Your task to perform on an android device: Open eBay Image 0: 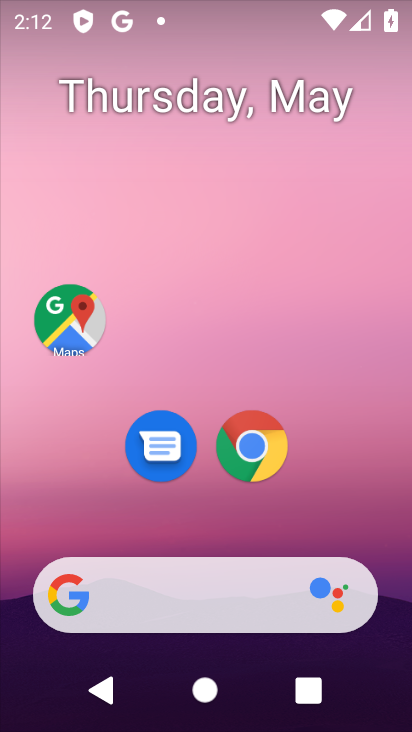
Step 0: click (257, 443)
Your task to perform on an android device: Open eBay Image 1: 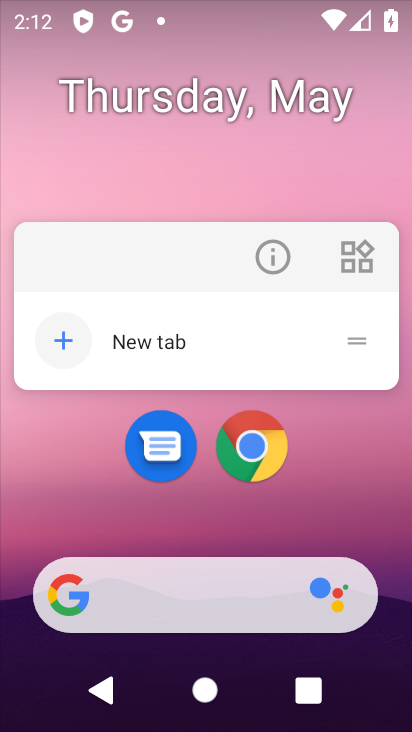
Step 1: click (258, 436)
Your task to perform on an android device: Open eBay Image 2: 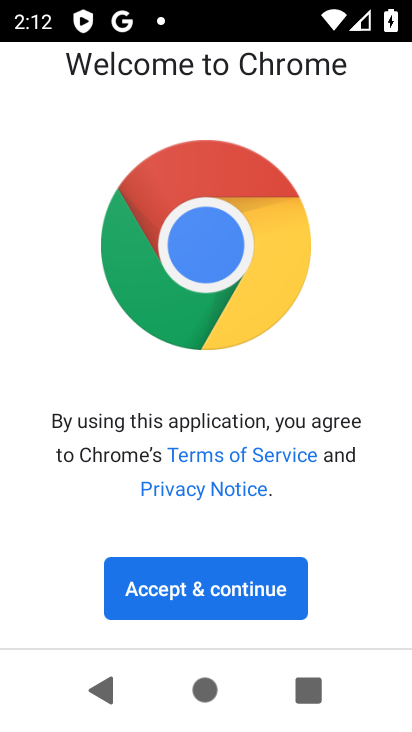
Step 2: click (157, 580)
Your task to perform on an android device: Open eBay Image 3: 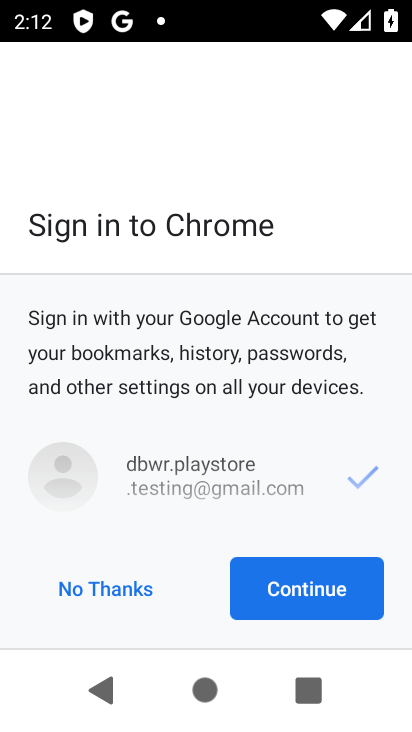
Step 3: click (330, 594)
Your task to perform on an android device: Open eBay Image 4: 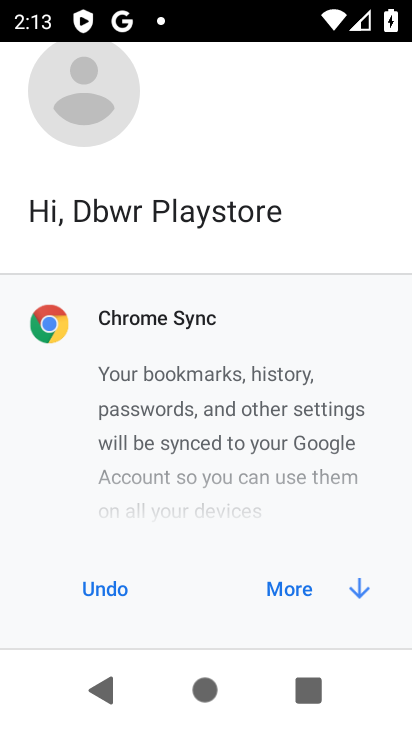
Step 4: click (278, 594)
Your task to perform on an android device: Open eBay Image 5: 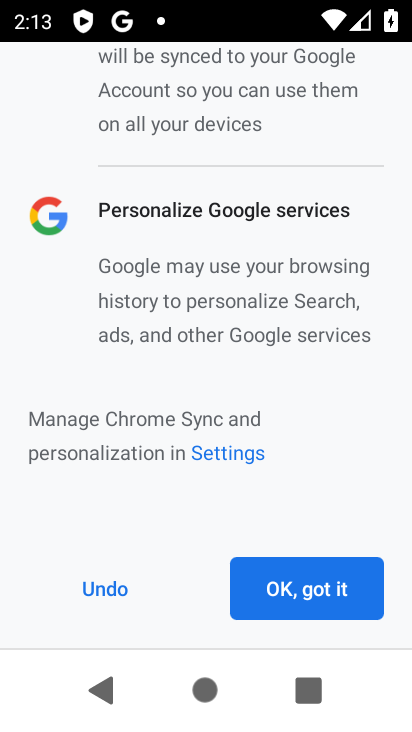
Step 5: click (251, 602)
Your task to perform on an android device: Open eBay Image 6: 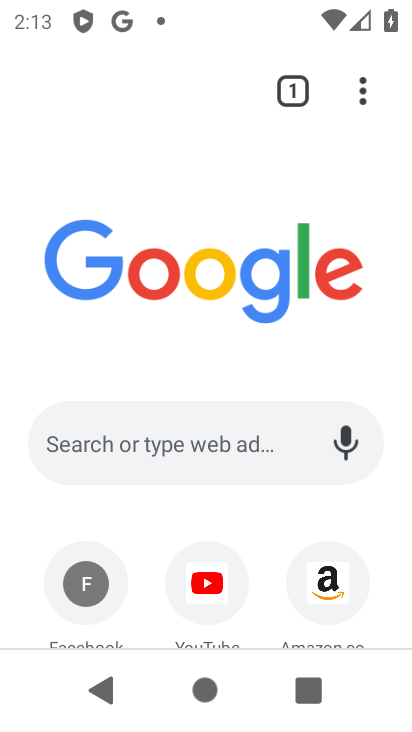
Step 6: click (180, 441)
Your task to perform on an android device: Open eBay Image 7: 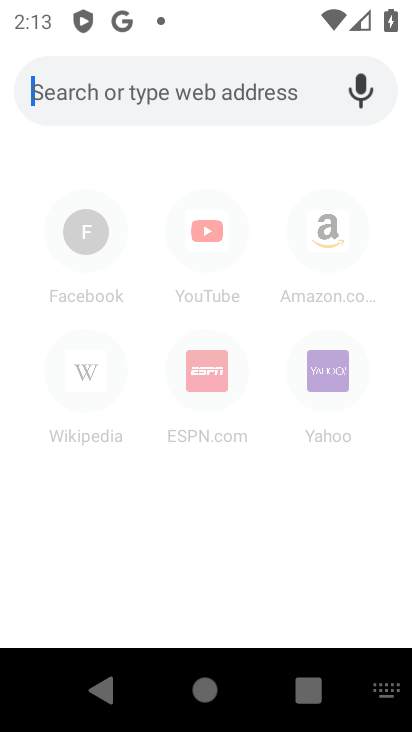
Step 7: type "ebay"
Your task to perform on an android device: Open eBay Image 8: 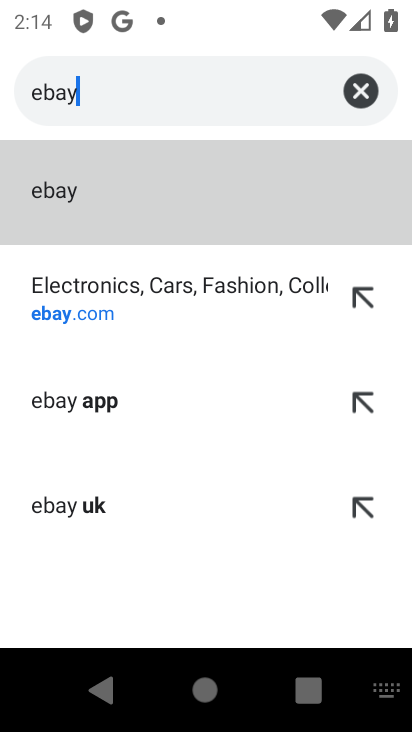
Step 8: click (70, 212)
Your task to perform on an android device: Open eBay Image 9: 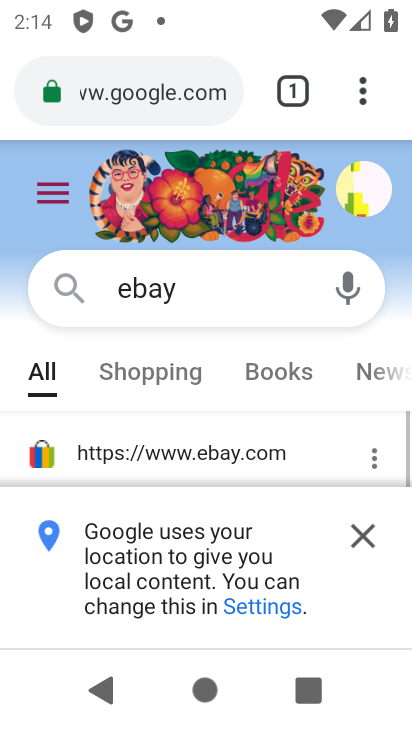
Step 9: drag from (179, 450) to (152, 186)
Your task to perform on an android device: Open eBay Image 10: 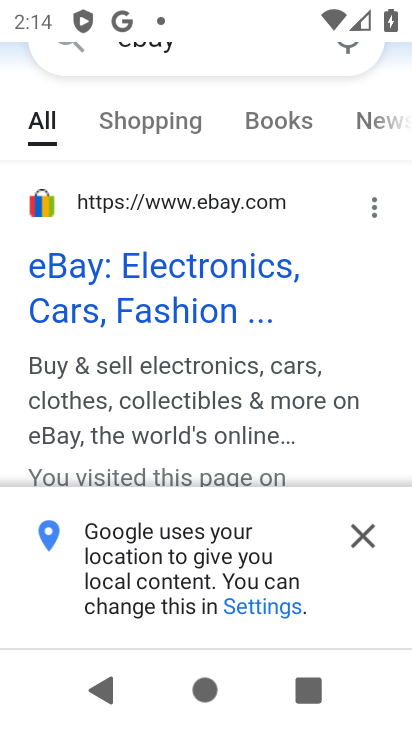
Step 10: click (131, 293)
Your task to perform on an android device: Open eBay Image 11: 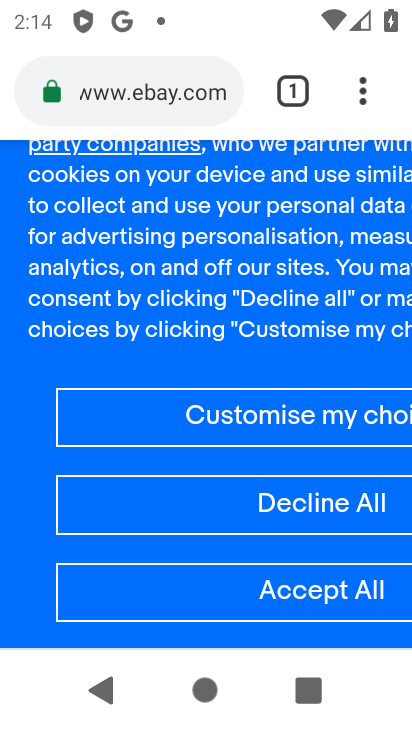
Step 11: task complete